Your task to perform on an android device: Open the calendar app, open the side menu, and click the "Day" option Image 0: 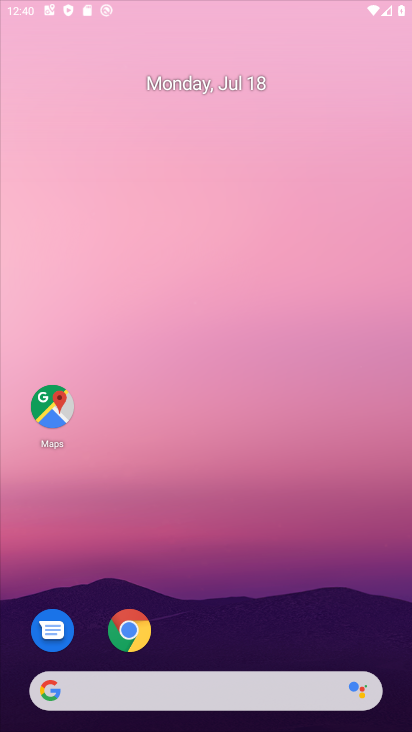
Step 0: click (287, 101)
Your task to perform on an android device: Open the calendar app, open the side menu, and click the "Day" option Image 1: 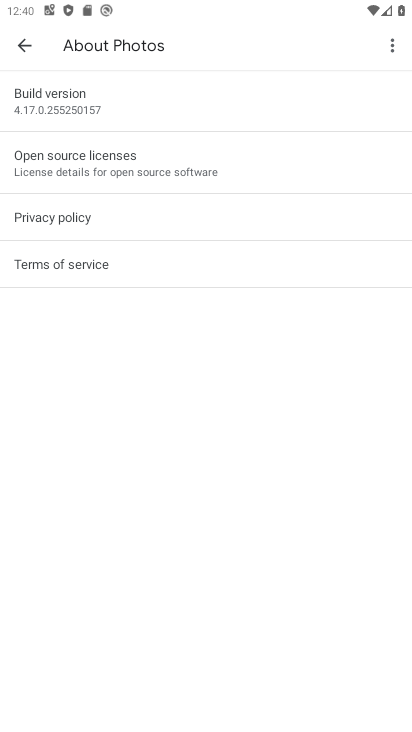
Step 1: press home button
Your task to perform on an android device: Open the calendar app, open the side menu, and click the "Day" option Image 2: 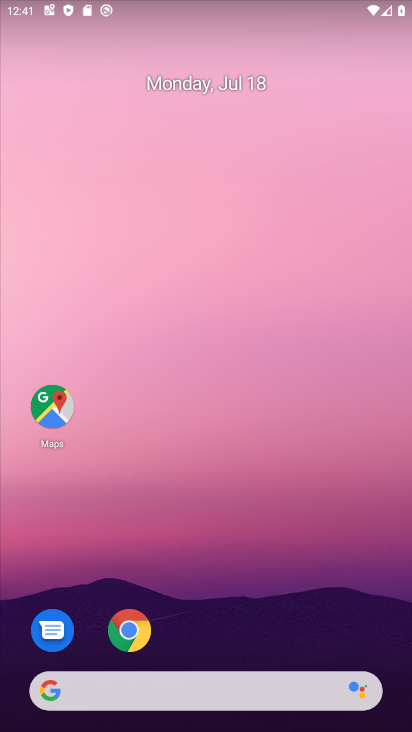
Step 2: drag from (377, 654) to (300, 232)
Your task to perform on an android device: Open the calendar app, open the side menu, and click the "Day" option Image 3: 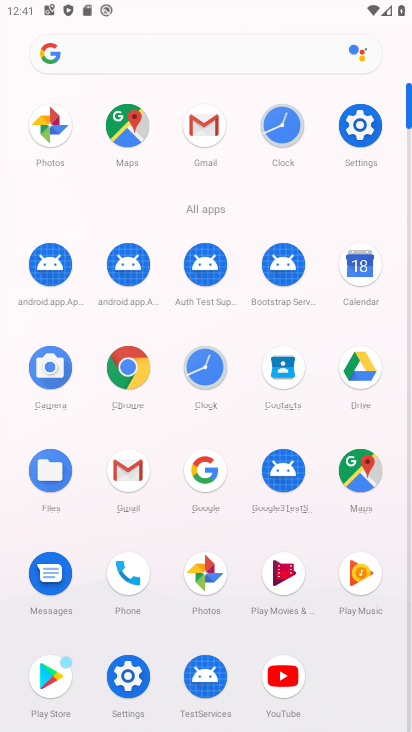
Step 3: click (362, 259)
Your task to perform on an android device: Open the calendar app, open the side menu, and click the "Day" option Image 4: 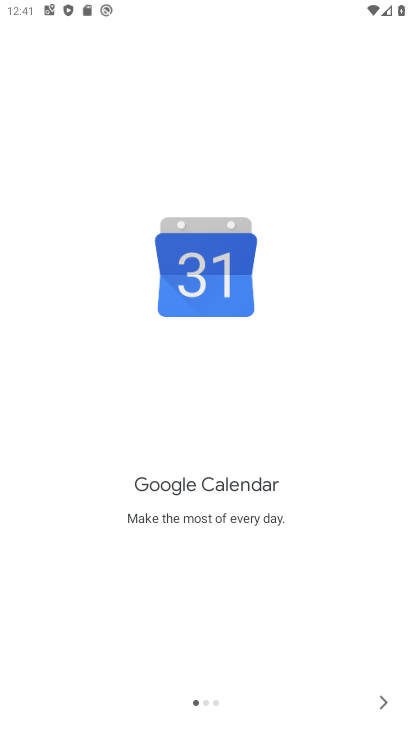
Step 4: click (381, 701)
Your task to perform on an android device: Open the calendar app, open the side menu, and click the "Day" option Image 5: 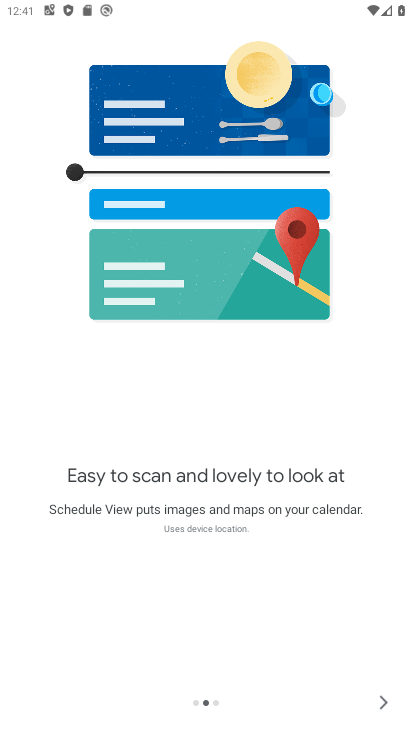
Step 5: click (380, 699)
Your task to perform on an android device: Open the calendar app, open the side menu, and click the "Day" option Image 6: 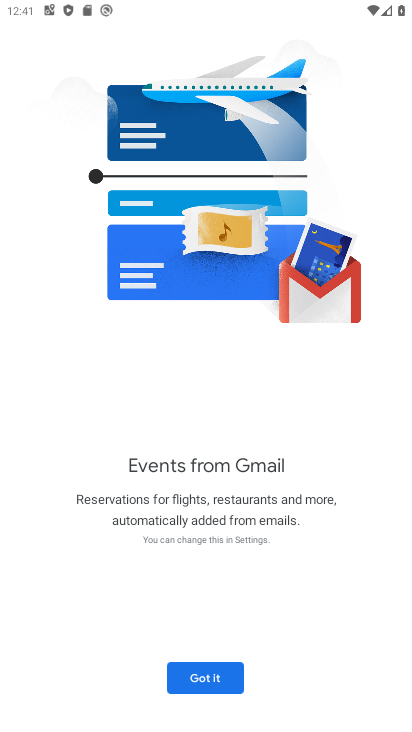
Step 6: click (225, 681)
Your task to perform on an android device: Open the calendar app, open the side menu, and click the "Day" option Image 7: 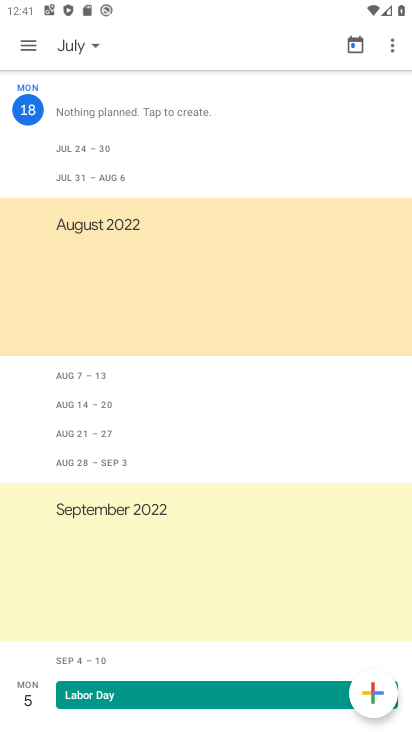
Step 7: click (27, 44)
Your task to perform on an android device: Open the calendar app, open the side menu, and click the "Day" option Image 8: 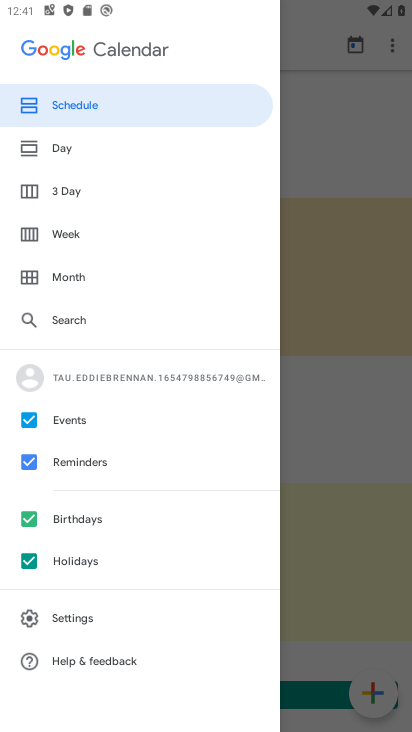
Step 8: click (72, 156)
Your task to perform on an android device: Open the calendar app, open the side menu, and click the "Day" option Image 9: 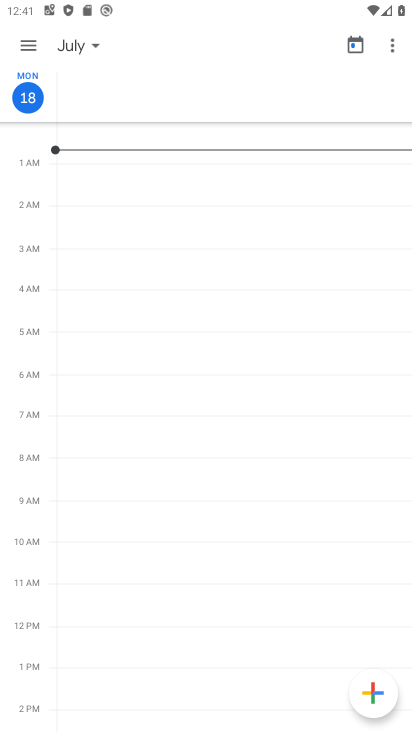
Step 9: task complete